Your task to perform on an android device: When is my next appointment? Image 0: 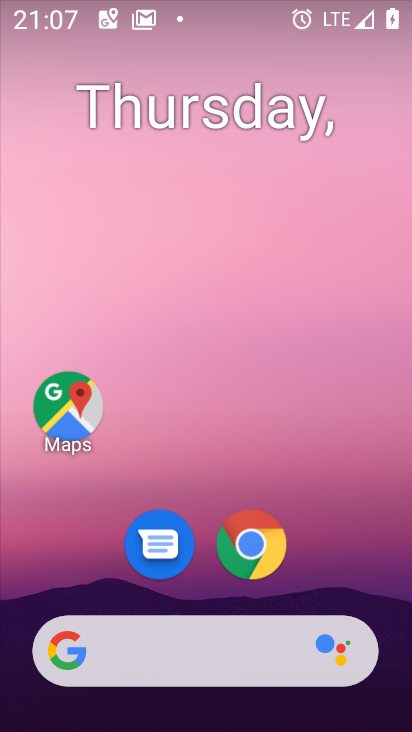
Step 0: click (104, 109)
Your task to perform on an android device: When is my next appointment? Image 1: 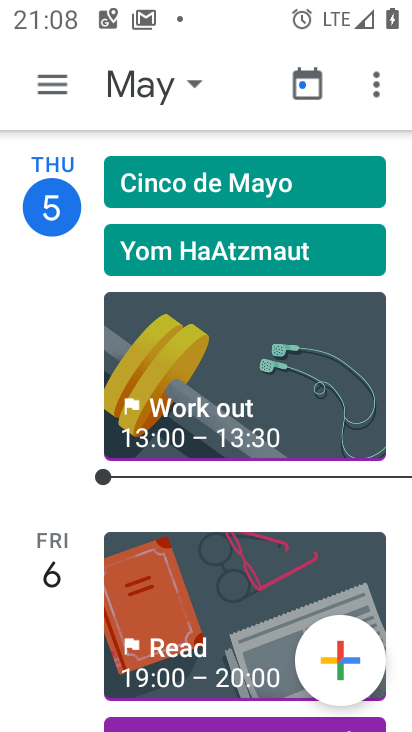
Step 1: click (60, 101)
Your task to perform on an android device: When is my next appointment? Image 2: 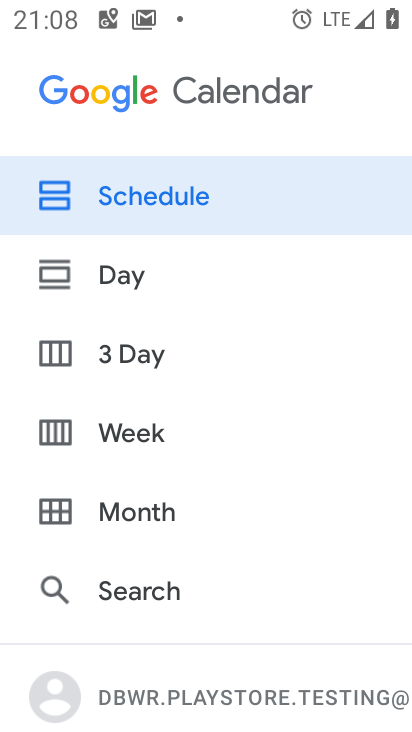
Step 2: drag from (120, 622) to (200, 187)
Your task to perform on an android device: When is my next appointment? Image 3: 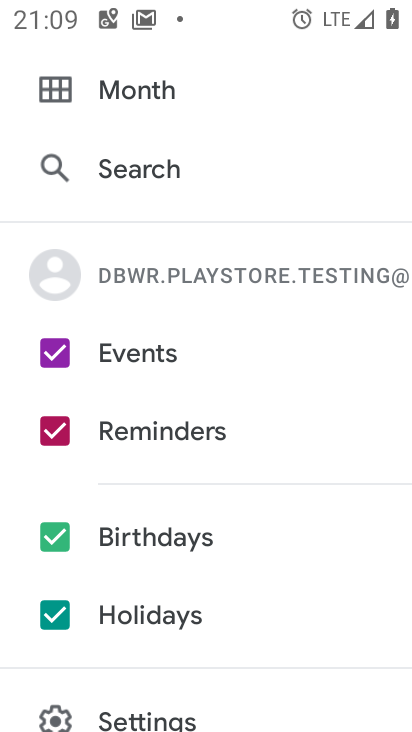
Step 3: click (157, 700)
Your task to perform on an android device: When is my next appointment? Image 4: 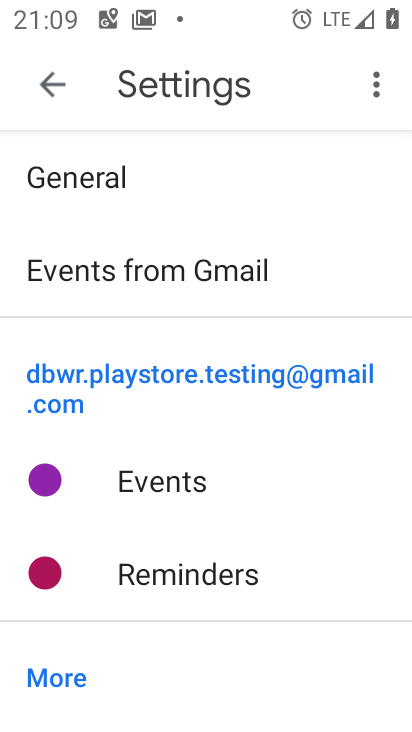
Step 4: task complete